Your task to perform on an android device: Open Wikipedia Image 0: 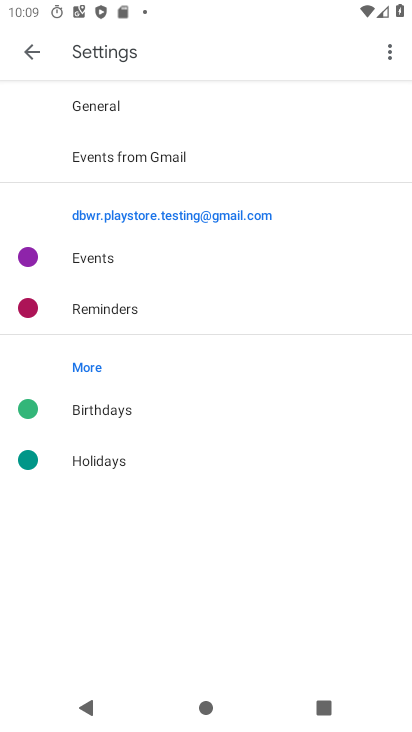
Step 0: press home button
Your task to perform on an android device: Open Wikipedia Image 1: 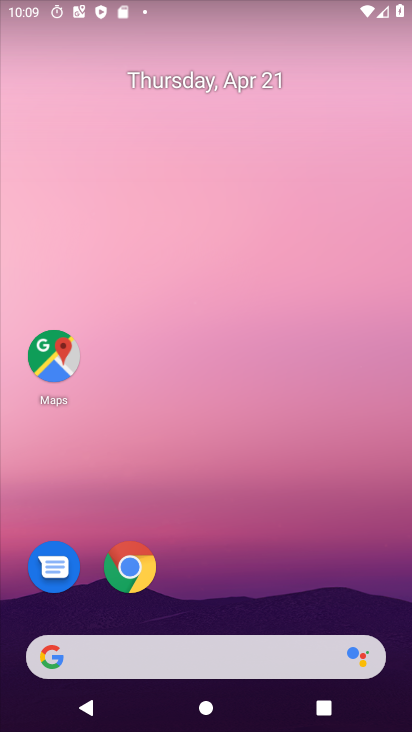
Step 1: click (125, 569)
Your task to perform on an android device: Open Wikipedia Image 2: 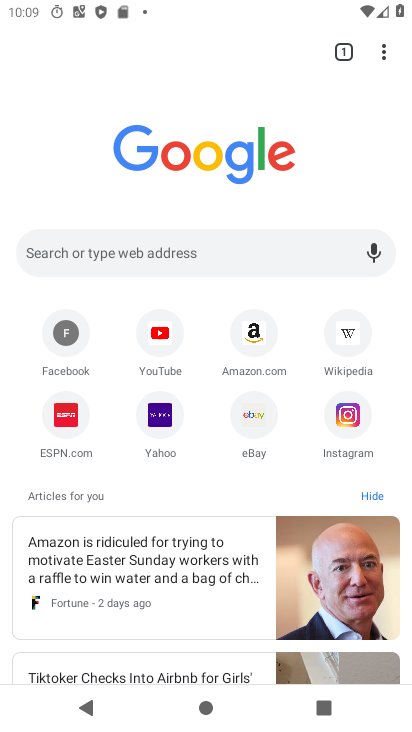
Step 2: click (342, 342)
Your task to perform on an android device: Open Wikipedia Image 3: 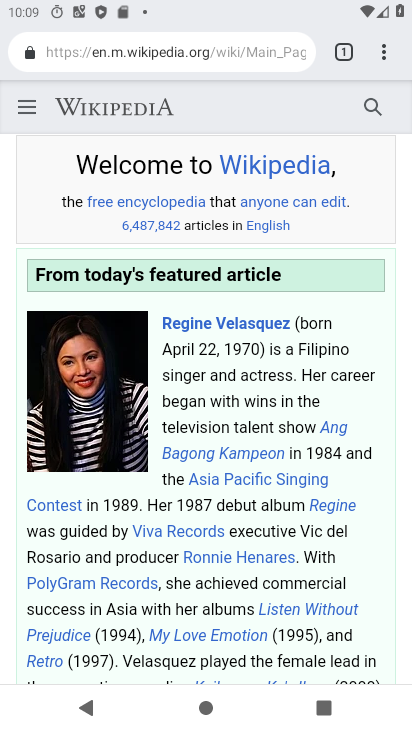
Step 3: task complete